Your task to perform on an android device: check battery use Image 0: 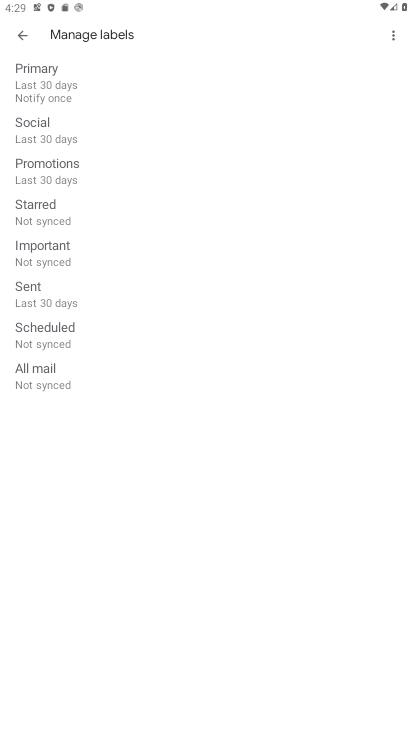
Step 0: click (13, 31)
Your task to perform on an android device: check battery use Image 1: 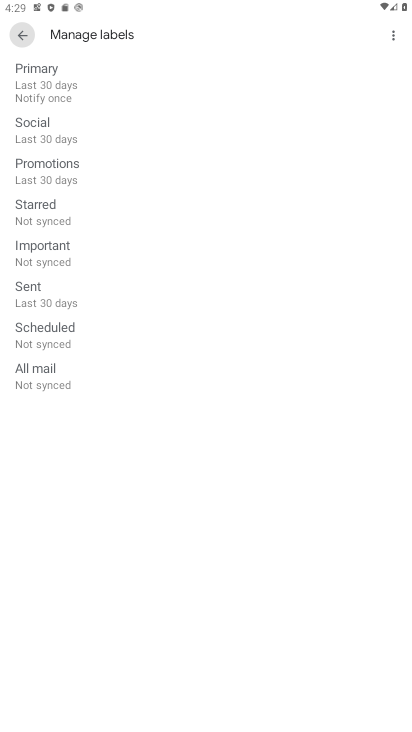
Step 1: click (13, 31)
Your task to perform on an android device: check battery use Image 2: 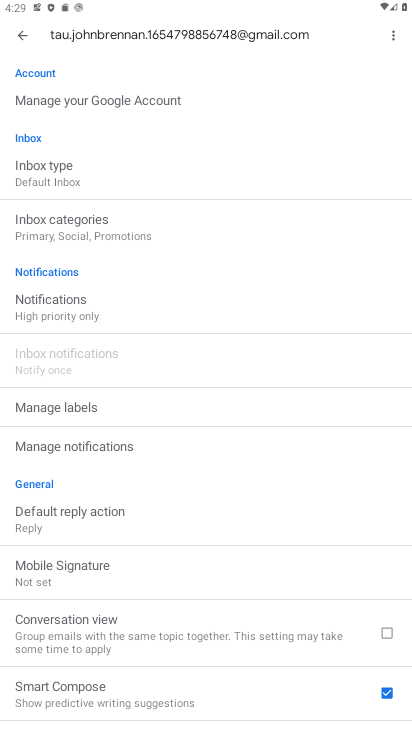
Step 2: press back button
Your task to perform on an android device: check battery use Image 3: 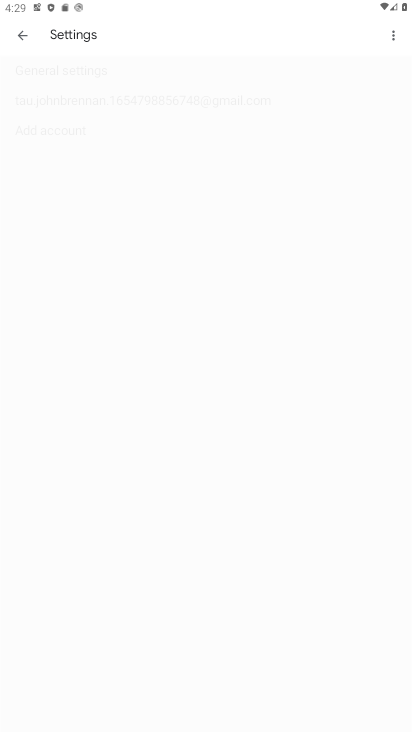
Step 3: press back button
Your task to perform on an android device: check battery use Image 4: 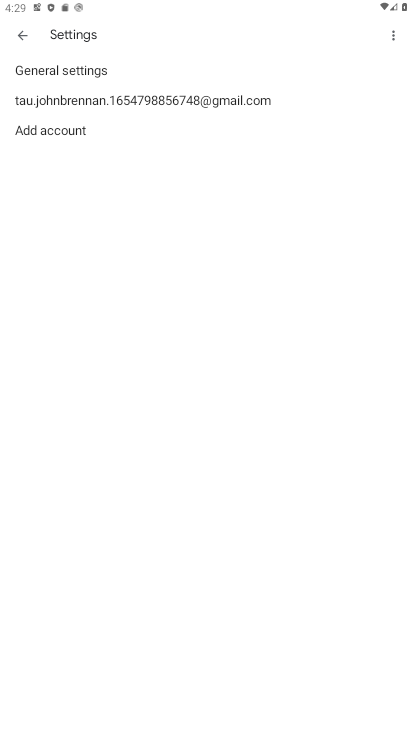
Step 4: press back button
Your task to perform on an android device: check battery use Image 5: 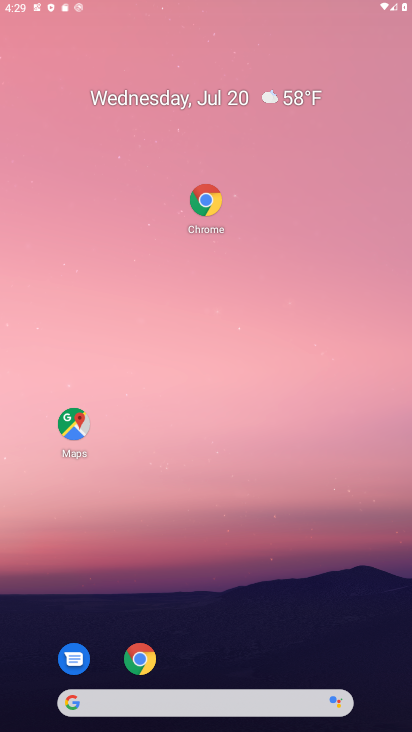
Step 5: click (20, 38)
Your task to perform on an android device: check battery use Image 6: 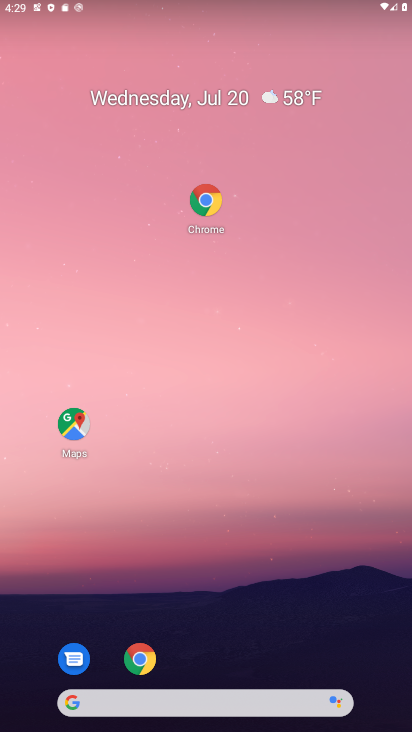
Step 6: click (20, 38)
Your task to perform on an android device: check battery use Image 7: 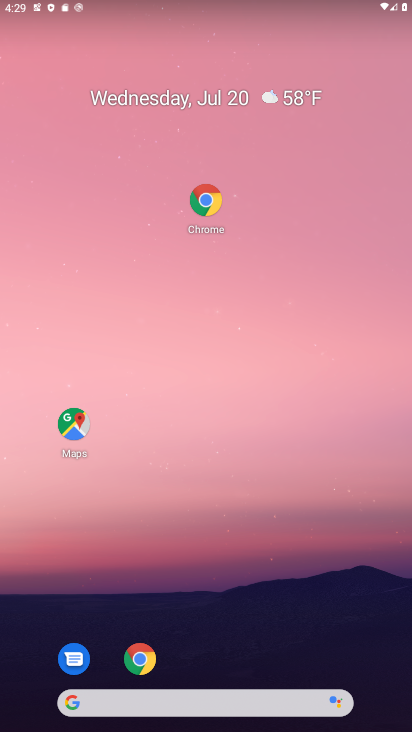
Step 7: drag from (211, 539) to (133, 154)
Your task to perform on an android device: check battery use Image 8: 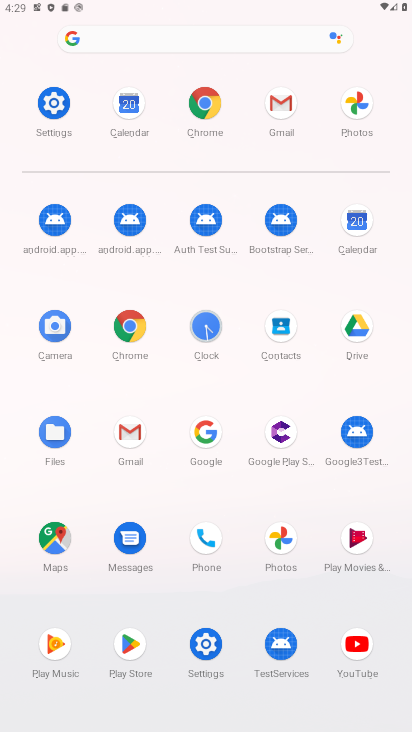
Step 8: drag from (248, 422) to (199, 88)
Your task to perform on an android device: check battery use Image 9: 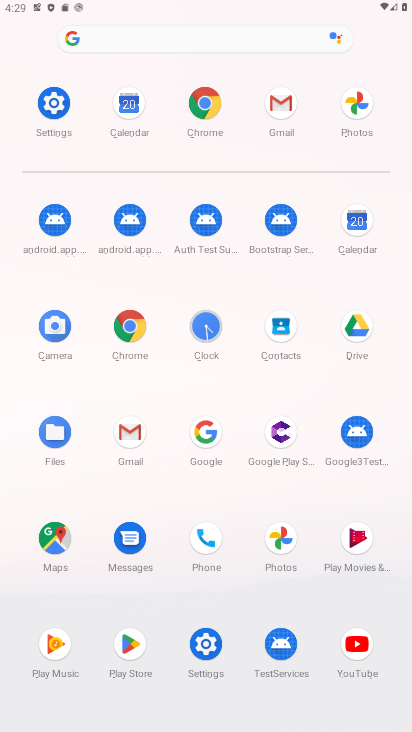
Step 9: click (208, 648)
Your task to perform on an android device: check battery use Image 10: 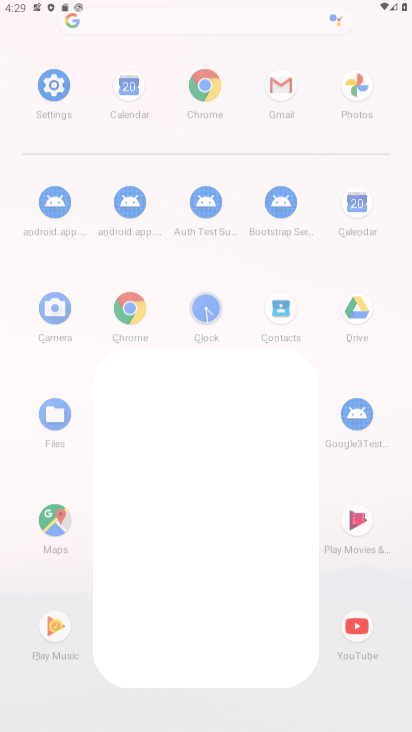
Step 10: click (208, 648)
Your task to perform on an android device: check battery use Image 11: 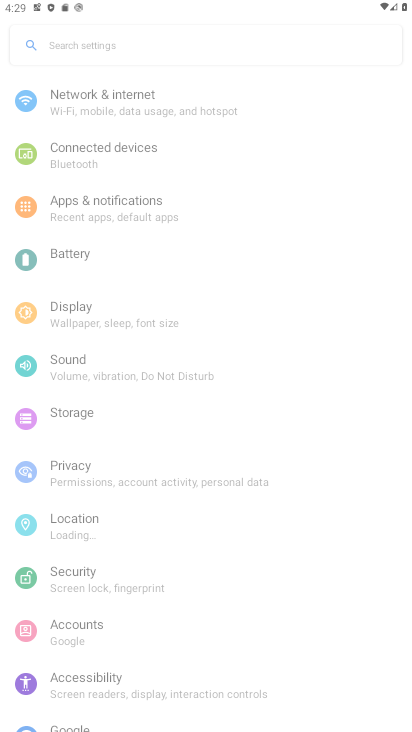
Step 11: click (207, 646)
Your task to perform on an android device: check battery use Image 12: 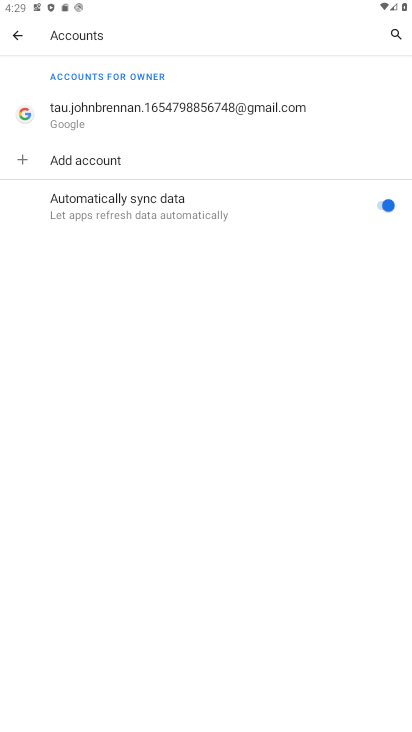
Step 12: click (16, 30)
Your task to perform on an android device: check battery use Image 13: 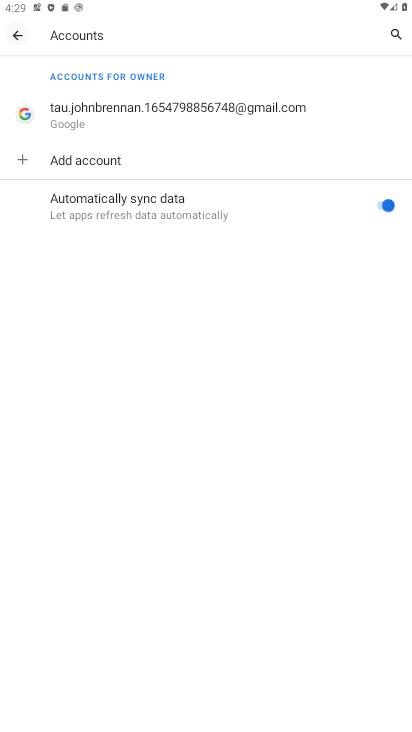
Step 13: click (16, 30)
Your task to perform on an android device: check battery use Image 14: 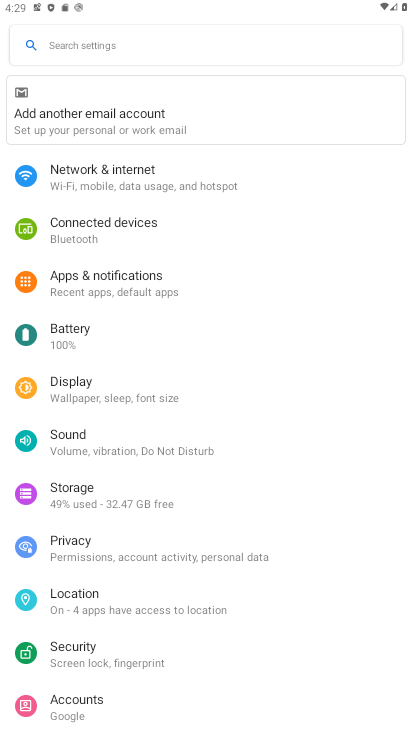
Step 14: click (67, 314)
Your task to perform on an android device: check battery use Image 15: 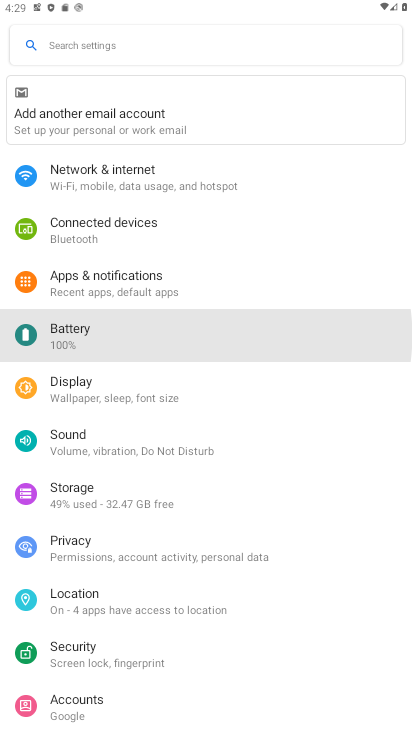
Step 15: click (67, 314)
Your task to perform on an android device: check battery use Image 16: 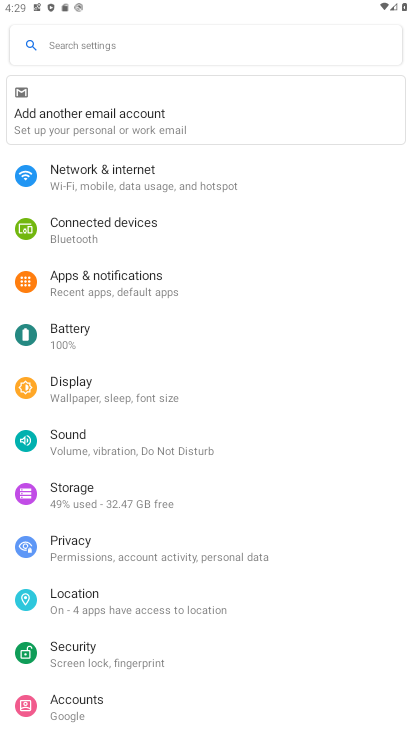
Step 16: click (67, 314)
Your task to perform on an android device: check battery use Image 17: 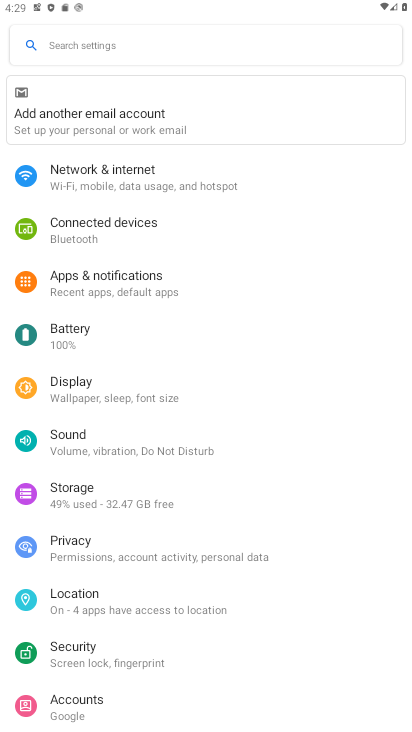
Step 17: click (67, 321)
Your task to perform on an android device: check battery use Image 18: 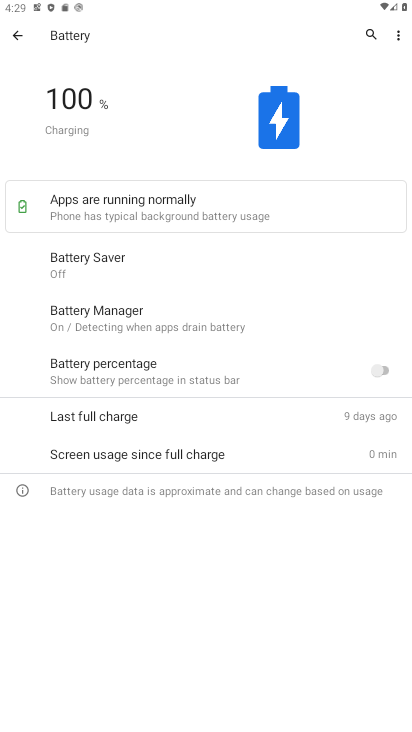
Step 18: click (67, 325)
Your task to perform on an android device: check battery use Image 19: 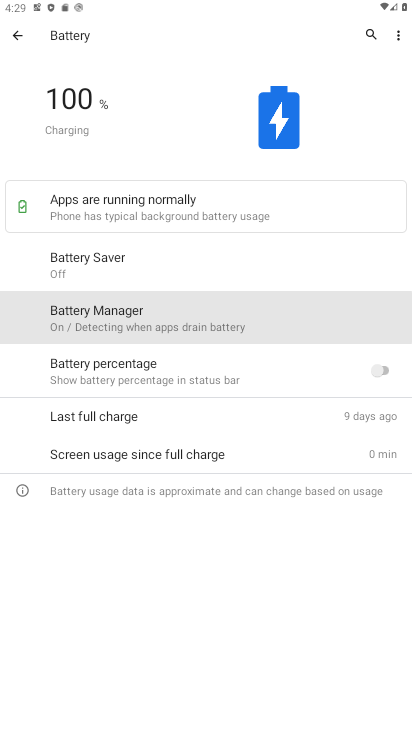
Step 19: click (72, 327)
Your task to perform on an android device: check battery use Image 20: 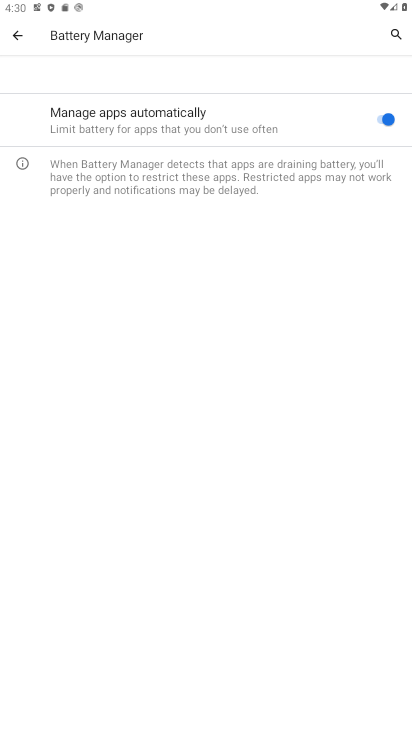
Step 20: task complete